Your task to perform on an android device: When is my next meeting? Image 0: 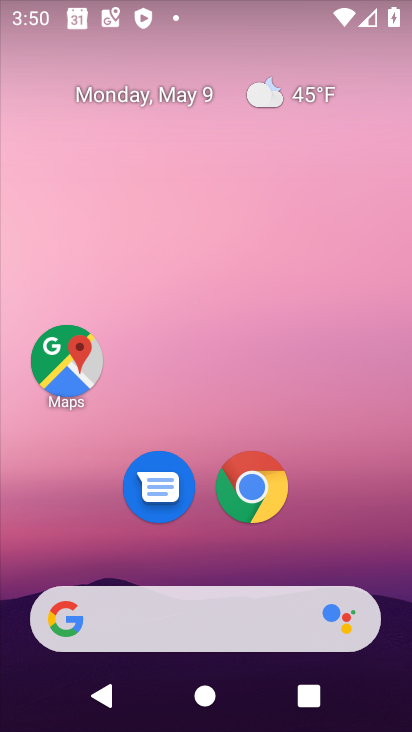
Step 0: drag from (186, 576) to (181, 331)
Your task to perform on an android device: When is my next meeting? Image 1: 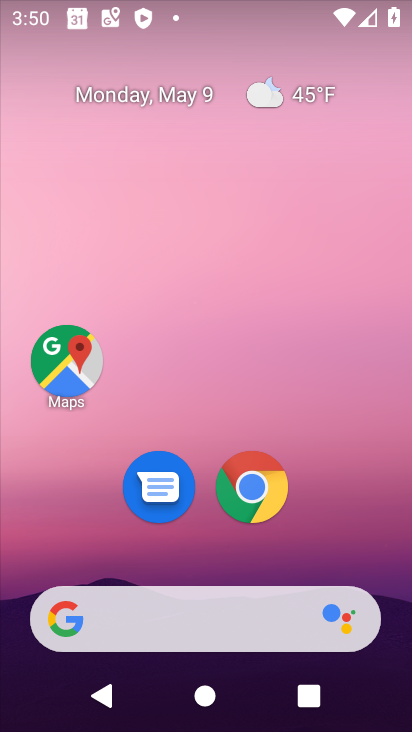
Step 1: click (150, 96)
Your task to perform on an android device: When is my next meeting? Image 2: 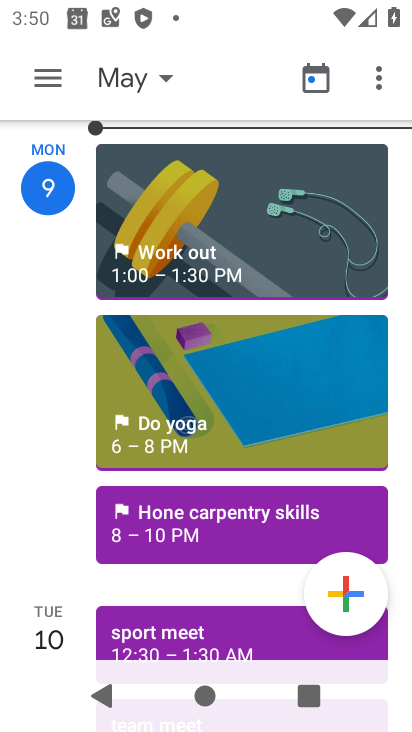
Step 2: drag from (196, 644) to (204, 392)
Your task to perform on an android device: When is my next meeting? Image 3: 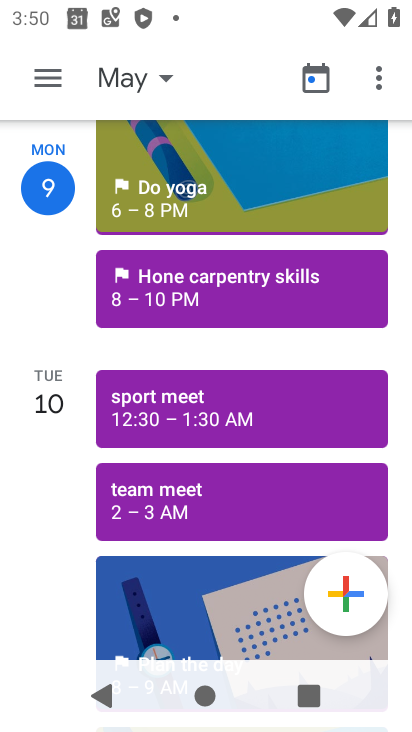
Step 3: click (202, 389)
Your task to perform on an android device: When is my next meeting? Image 4: 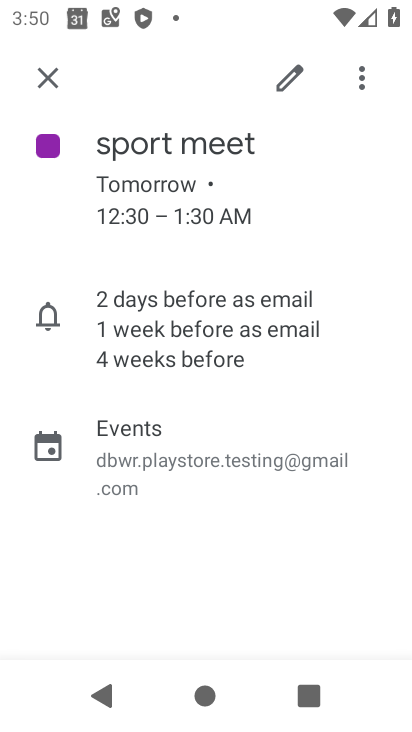
Step 4: task complete